Your task to perform on an android device: Search for vegetarian restaurants on Maps Image 0: 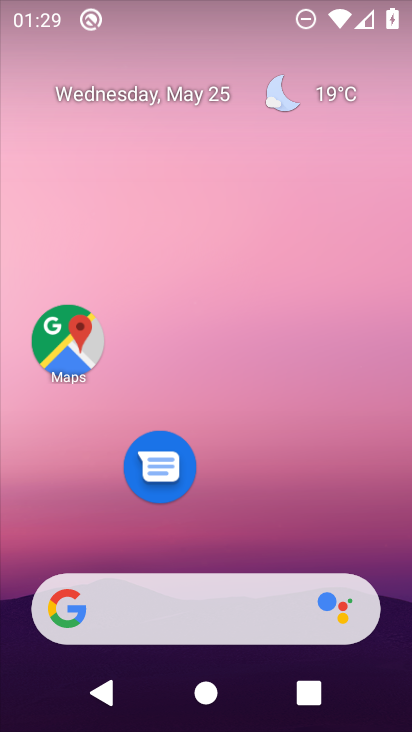
Step 0: drag from (217, 555) to (245, 117)
Your task to perform on an android device: Search for vegetarian restaurants on Maps Image 1: 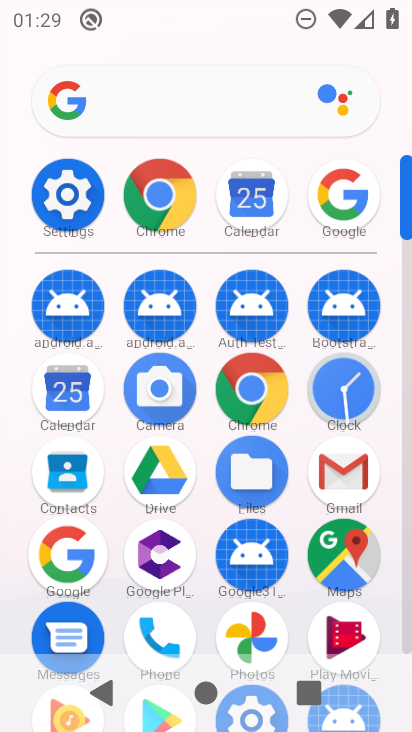
Step 1: click (344, 550)
Your task to perform on an android device: Search for vegetarian restaurants on Maps Image 2: 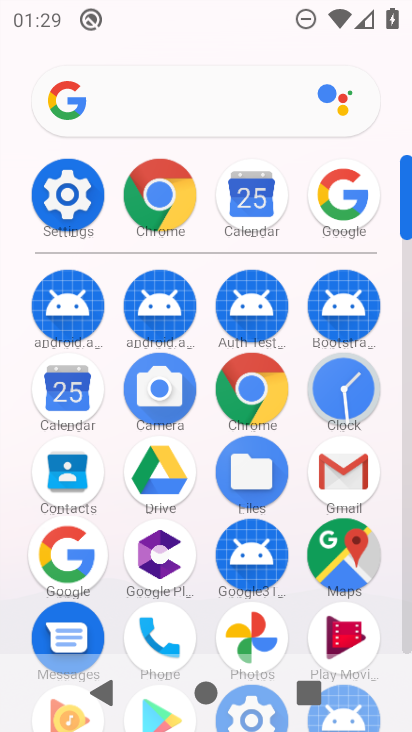
Step 2: click (344, 550)
Your task to perform on an android device: Search for vegetarian restaurants on Maps Image 3: 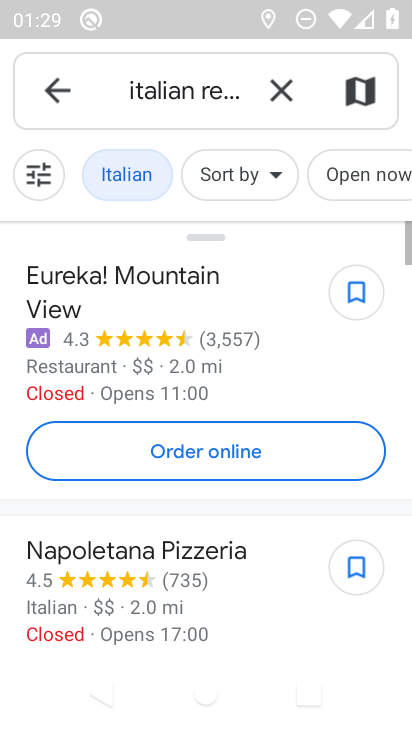
Step 3: click (283, 84)
Your task to perform on an android device: Search for vegetarian restaurants on Maps Image 4: 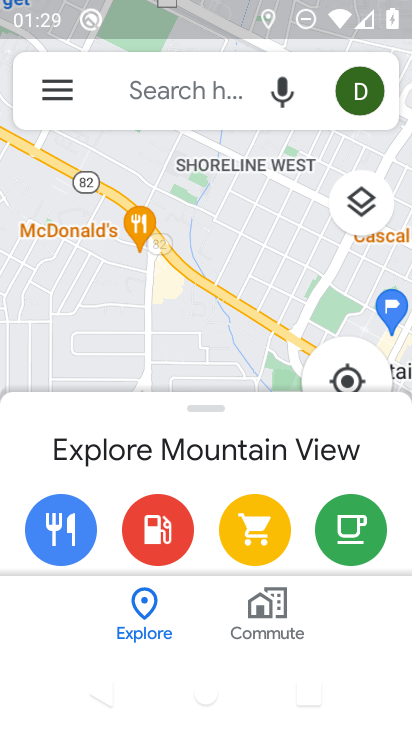
Step 4: click (144, 103)
Your task to perform on an android device: Search for vegetarian restaurants on Maps Image 5: 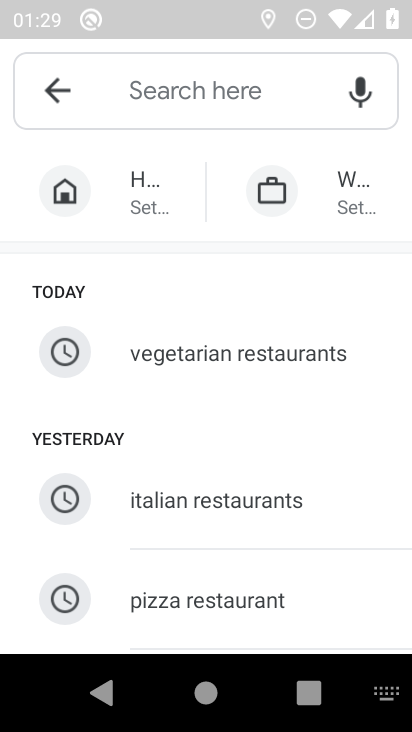
Step 5: click (190, 350)
Your task to perform on an android device: Search for vegetarian restaurants on Maps Image 6: 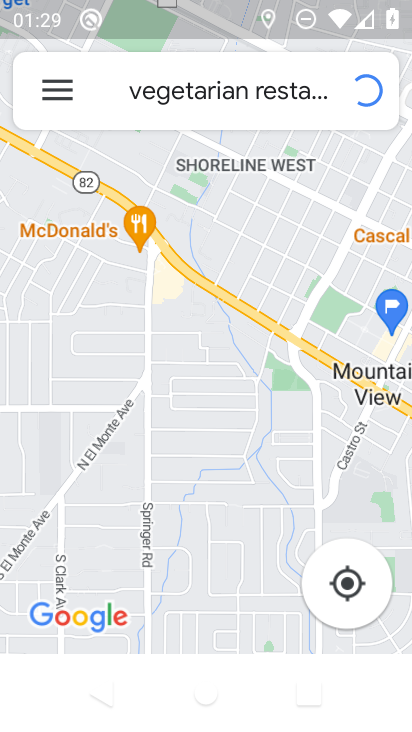
Step 6: task complete